Your task to perform on an android device: Open Chrome and go to settings Image 0: 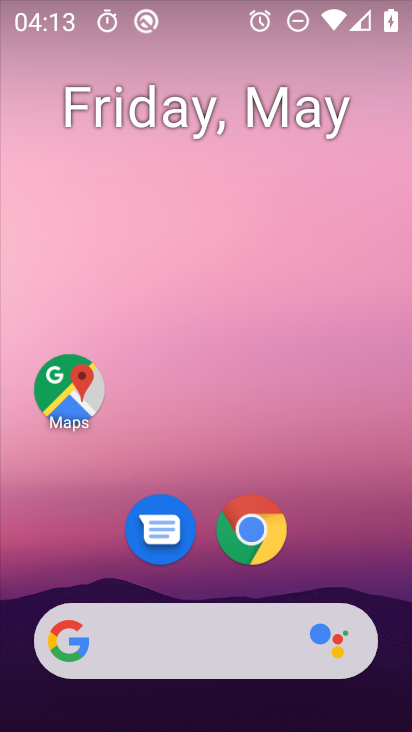
Step 0: click (253, 529)
Your task to perform on an android device: Open Chrome and go to settings Image 1: 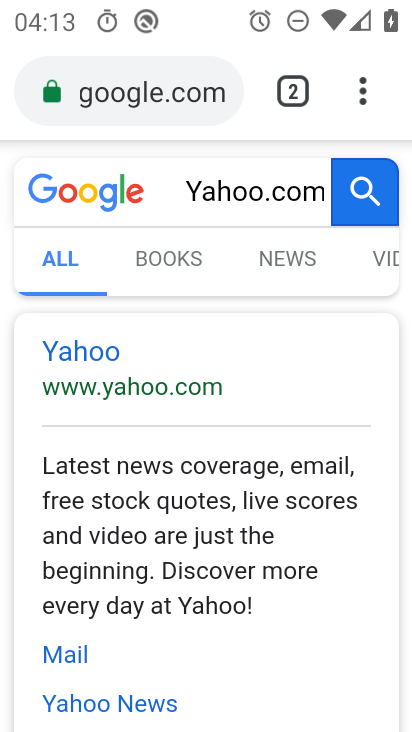
Step 1: click (358, 84)
Your task to perform on an android device: Open Chrome and go to settings Image 2: 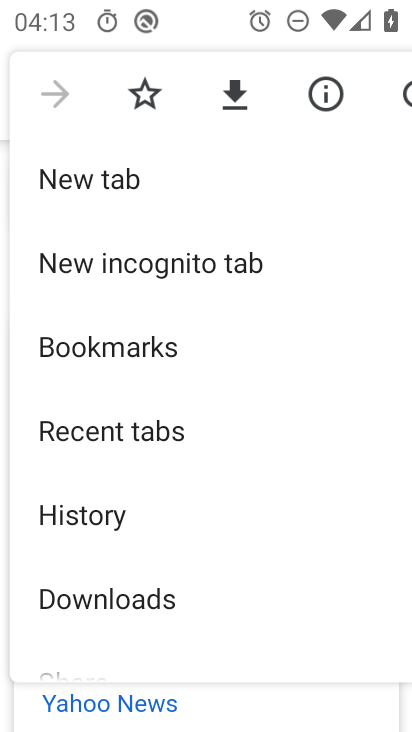
Step 2: drag from (241, 638) to (305, 275)
Your task to perform on an android device: Open Chrome and go to settings Image 3: 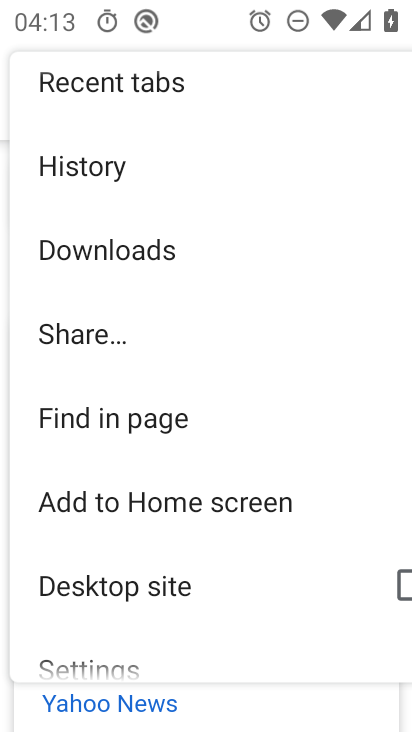
Step 3: drag from (277, 604) to (302, 270)
Your task to perform on an android device: Open Chrome and go to settings Image 4: 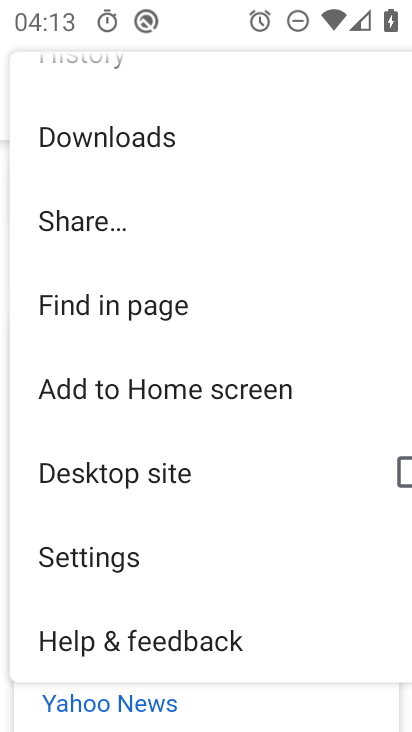
Step 4: click (76, 552)
Your task to perform on an android device: Open Chrome and go to settings Image 5: 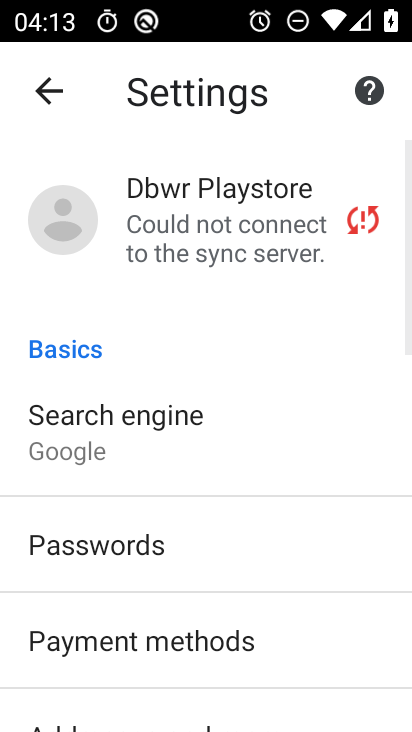
Step 5: task complete